Your task to perform on an android device: Open the phone app and click the voicemail tab. Image 0: 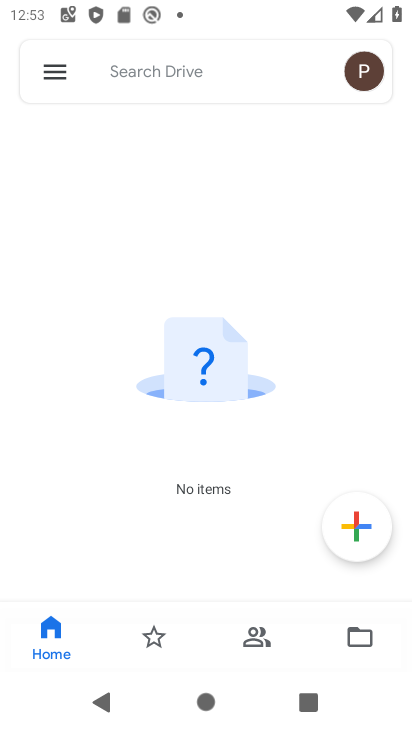
Step 0: press home button
Your task to perform on an android device: Open the phone app and click the voicemail tab. Image 1: 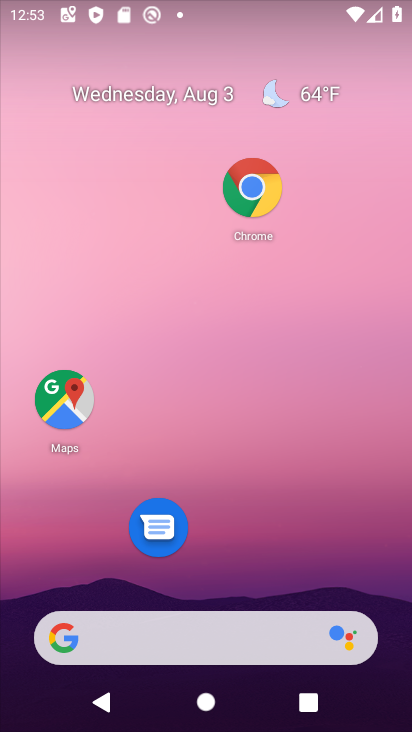
Step 1: drag from (225, 576) to (293, 20)
Your task to perform on an android device: Open the phone app and click the voicemail tab. Image 2: 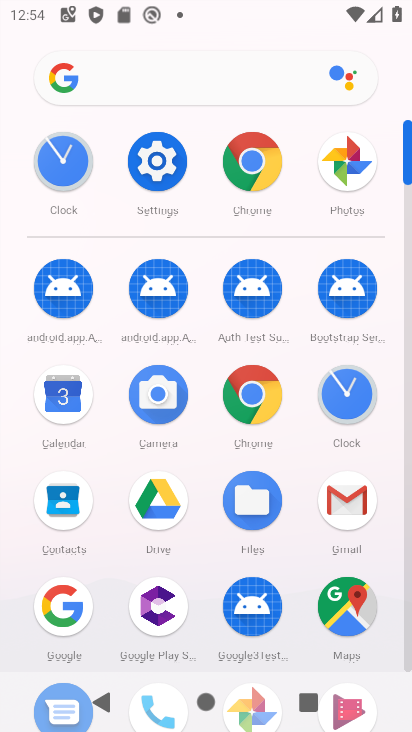
Step 2: drag from (187, 640) to (193, 346)
Your task to perform on an android device: Open the phone app and click the voicemail tab. Image 3: 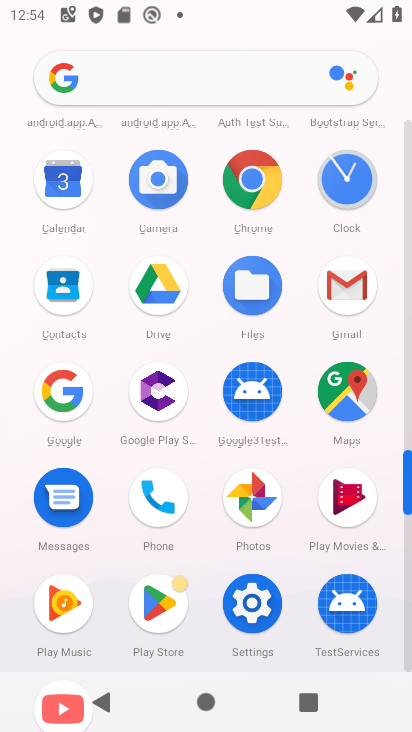
Step 3: click (158, 601)
Your task to perform on an android device: Open the phone app and click the voicemail tab. Image 4: 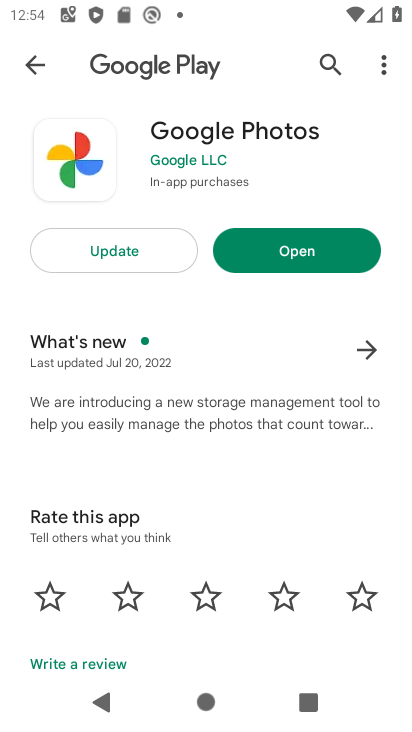
Step 4: click (23, 56)
Your task to perform on an android device: Open the phone app and click the voicemail tab. Image 5: 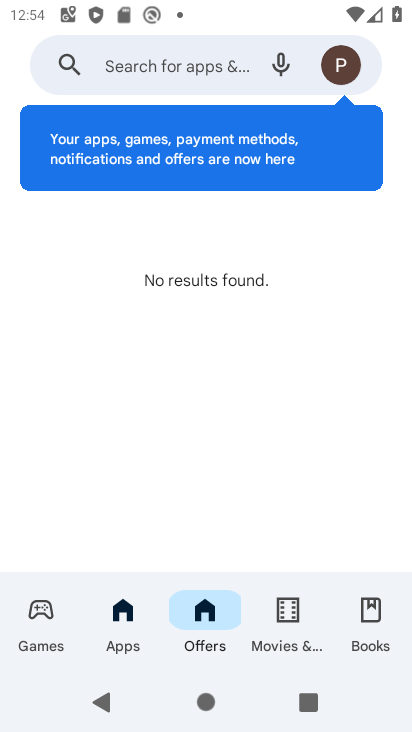
Step 5: press home button
Your task to perform on an android device: Open the phone app and click the voicemail tab. Image 6: 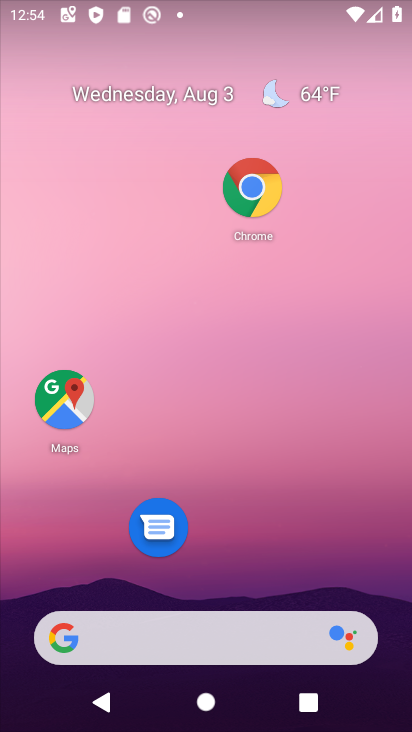
Step 6: drag from (201, 582) to (179, 0)
Your task to perform on an android device: Open the phone app and click the voicemail tab. Image 7: 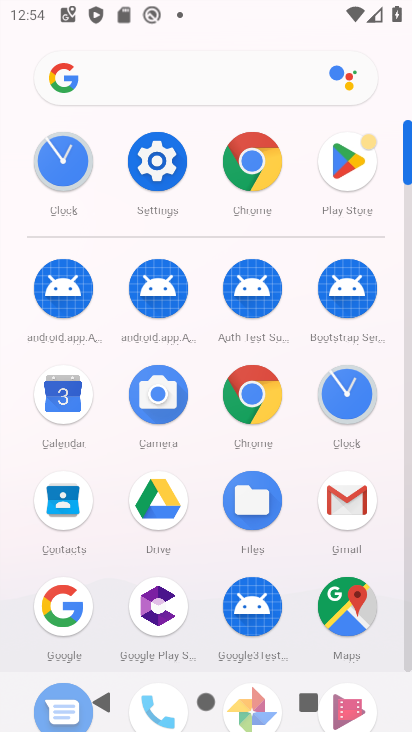
Step 7: drag from (209, 582) to (219, 206)
Your task to perform on an android device: Open the phone app and click the voicemail tab. Image 8: 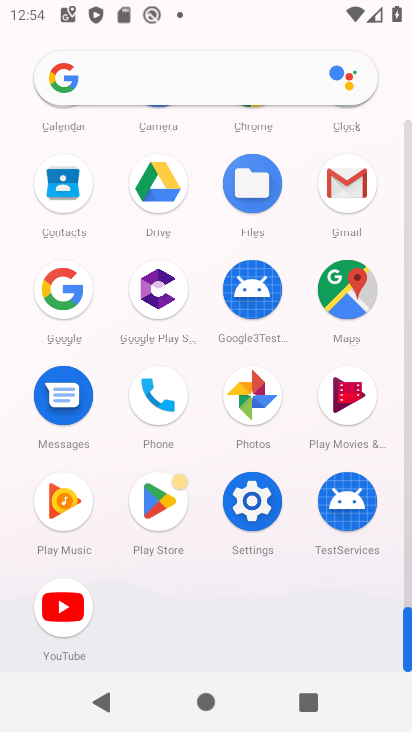
Step 8: click (156, 390)
Your task to perform on an android device: Open the phone app and click the voicemail tab. Image 9: 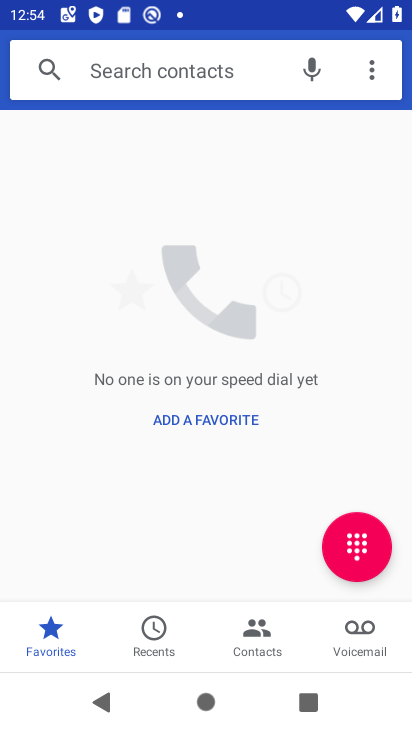
Step 9: click (365, 636)
Your task to perform on an android device: Open the phone app and click the voicemail tab. Image 10: 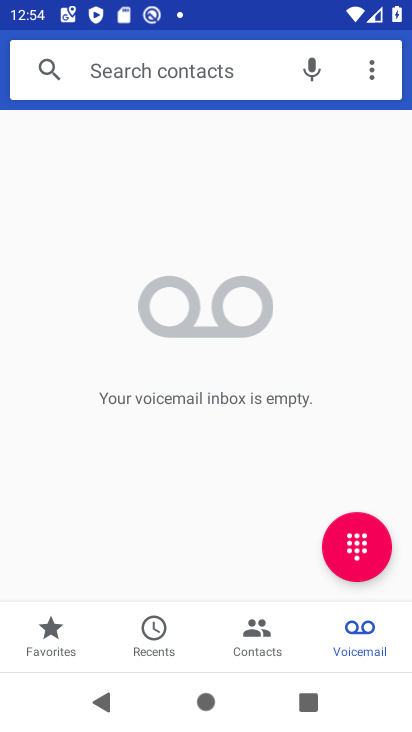
Step 10: task complete